Your task to perform on an android device: Open Amazon Image 0: 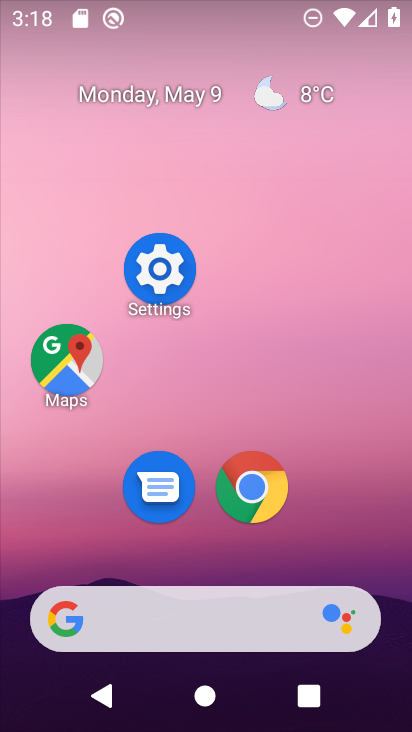
Step 0: click (230, 469)
Your task to perform on an android device: Open Amazon Image 1: 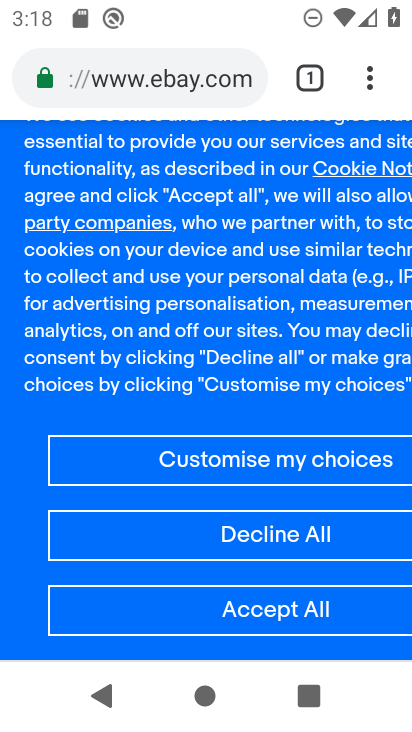
Step 1: click (264, 530)
Your task to perform on an android device: Open Amazon Image 2: 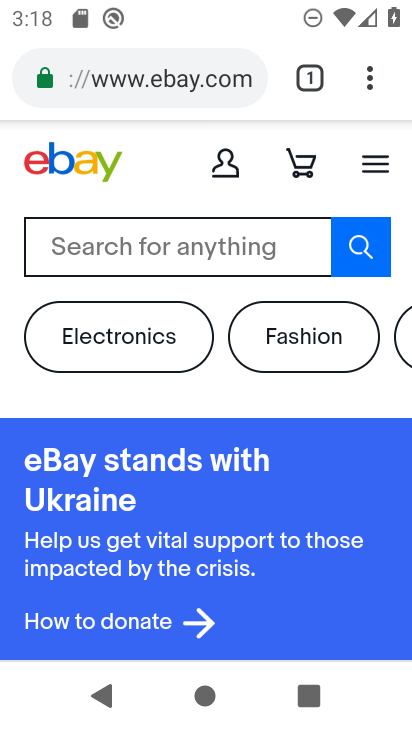
Step 2: click (312, 80)
Your task to perform on an android device: Open Amazon Image 3: 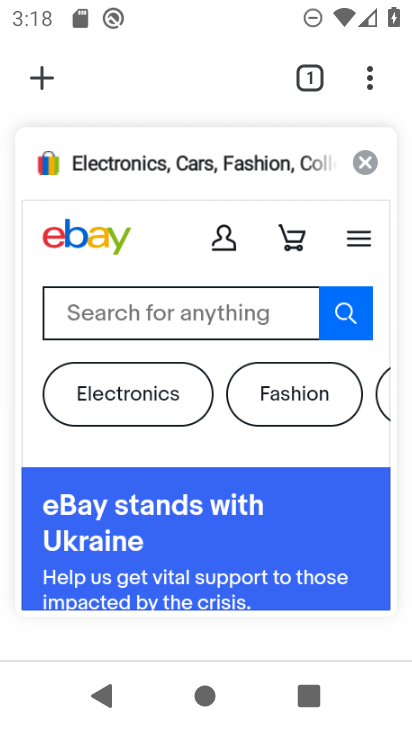
Step 3: click (364, 158)
Your task to perform on an android device: Open Amazon Image 4: 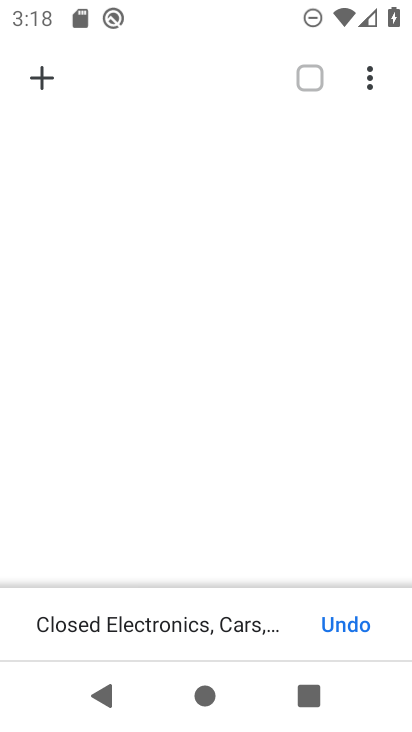
Step 4: click (35, 78)
Your task to perform on an android device: Open Amazon Image 5: 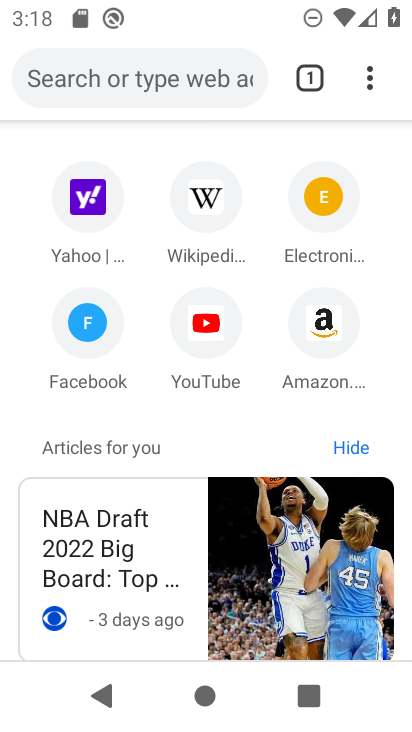
Step 5: click (309, 310)
Your task to perform on an android device: Open Amazon Image 6: 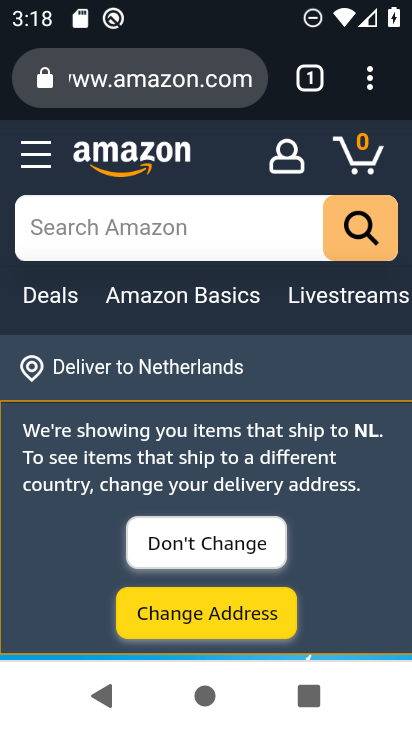
Step 6: task complete